Your task to perform on an android device: Show me recent news Image 0: 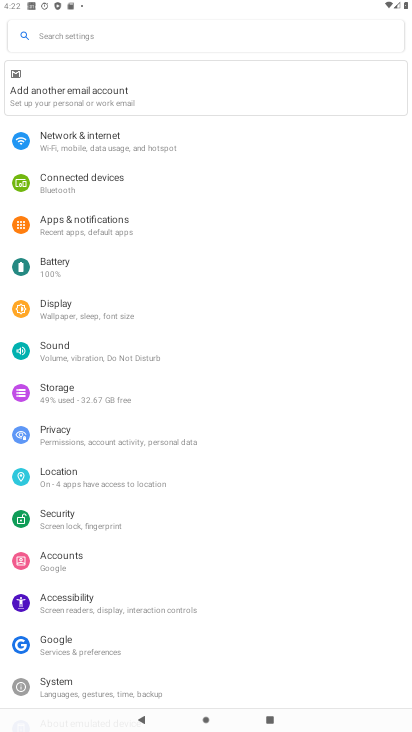
Step 0: press home button
Your task to perform on an android device: Show me recent news Image 1: 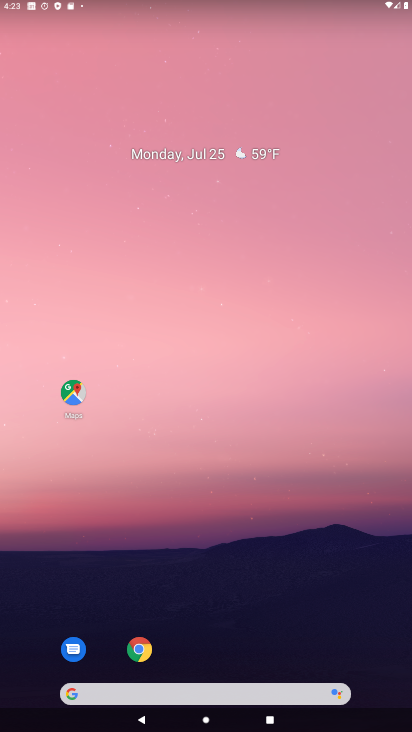
Step 1: click (142, 661)
Your task to perform on an android device: Show me recent news Image 2: 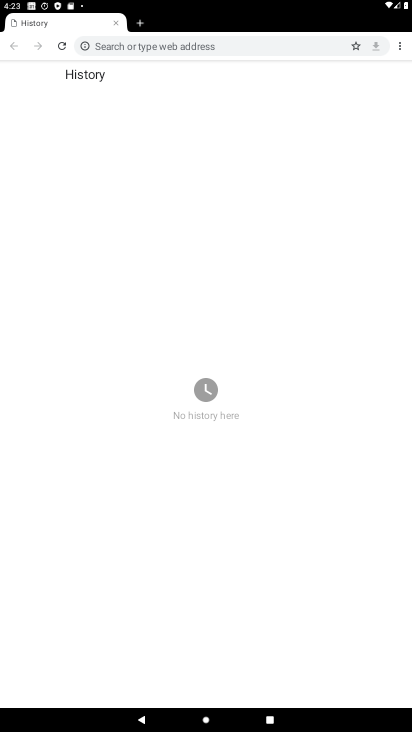
Step 2: click (247, 48)
Your task to perform on an android device: Show me recent news Image 3: 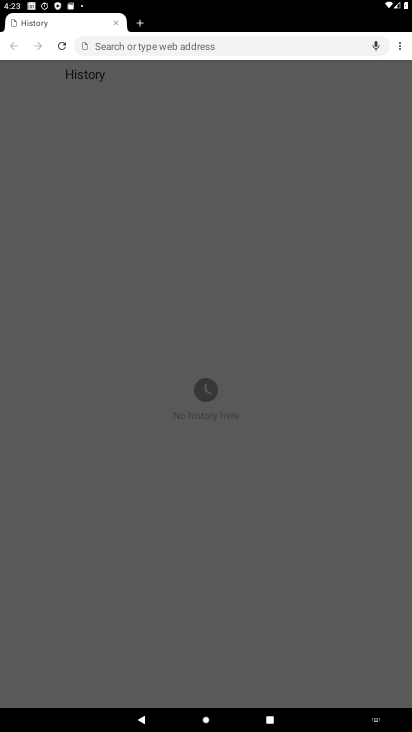
Step 3: type "Show me recent news"
Your task to perform on an android device: Show me recent news Image 4: 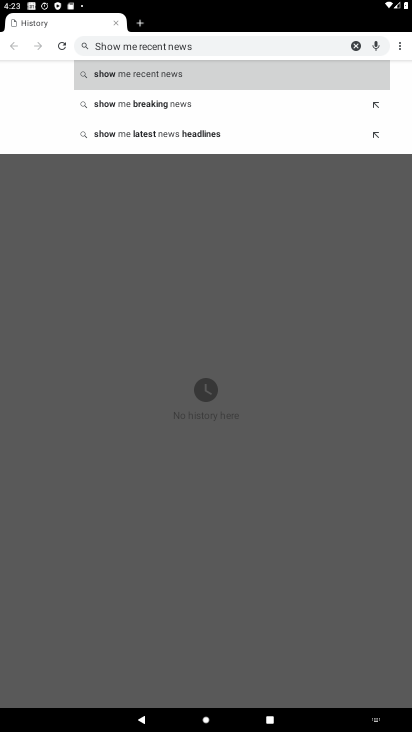
Step 4: click (163, 83)
Your task to perform on an android device: Show me recent news Image 5: 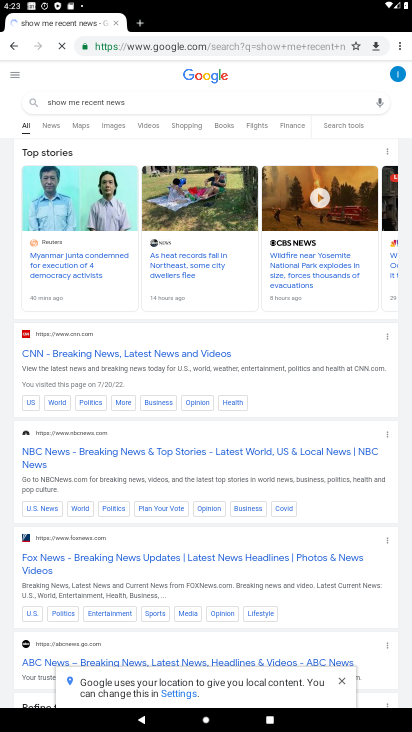
Step 5: task complete